Your task to perform on an android device: turn off notifications in google photos Image 0: 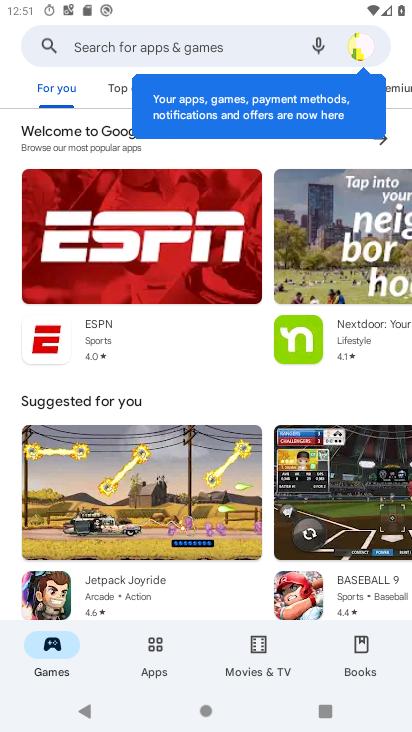
Step 0: press home button
Your task to perform on an android device: turn off notifications in google photos Image 1: 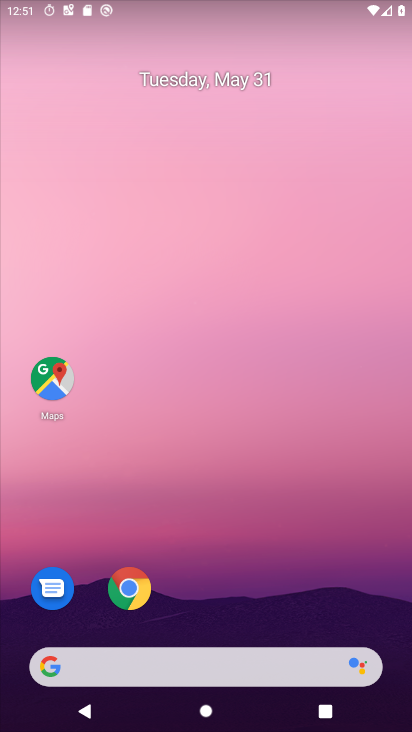
Step 1: drag from (331, 576) to (397, 25)
Your task to perform on an android device: turn off notifications in google photos Image 2: 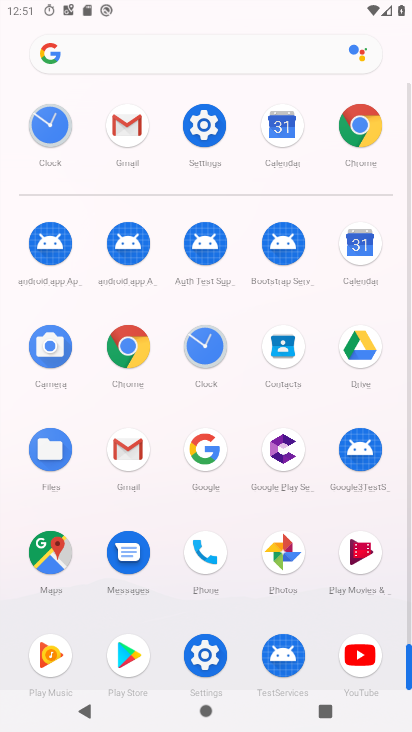
Step 2: click (278, 574)
Your task to perform on an android device: turn off notifications in google photos Image 3: 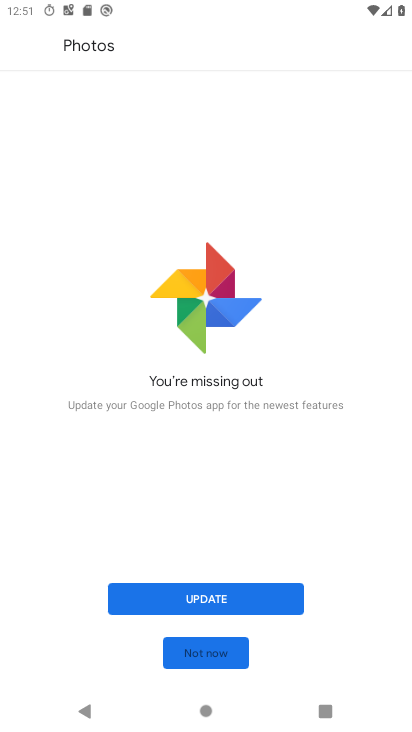
Step 3: click (252, 598)
Your task to perform on an android device: turn off notifications in google photos Image 4: 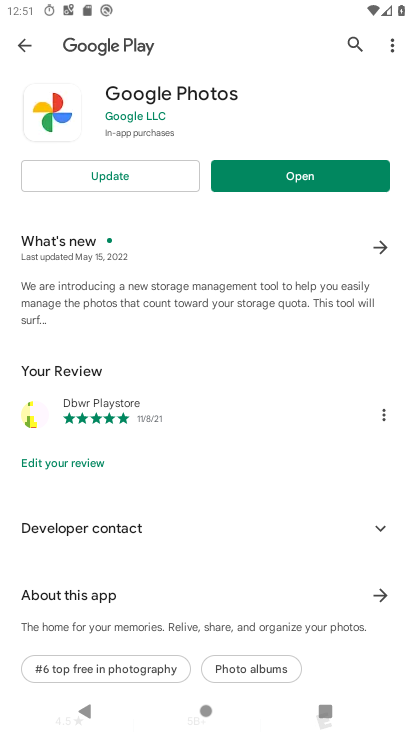
Step 4: click (128, 174)
Your task to perform on an android device: turn off notifications in google photos Image 5: 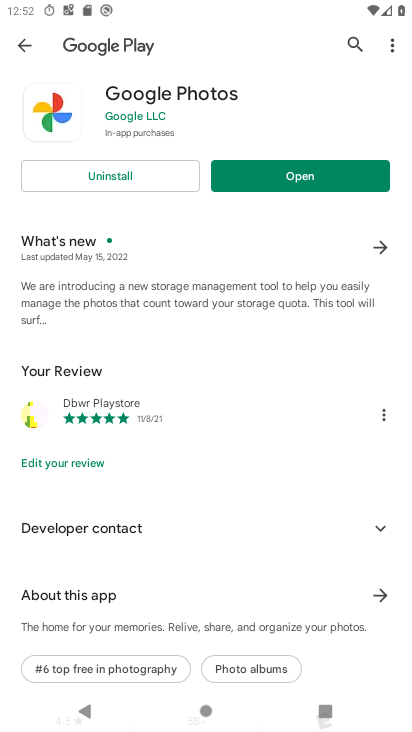
Step 5: click (304, 175)
Your task to perform on an android device: turn off notifications in google photos Image 6: 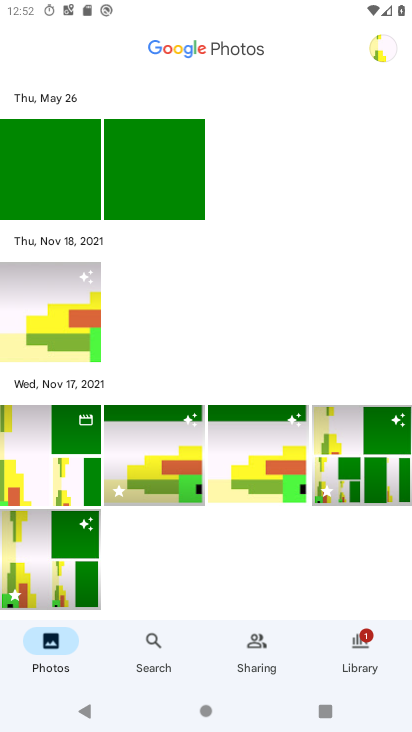
Step 6: click (381, 48)
Your task to perform on an android device: turn off notifications in google photos Image 7: 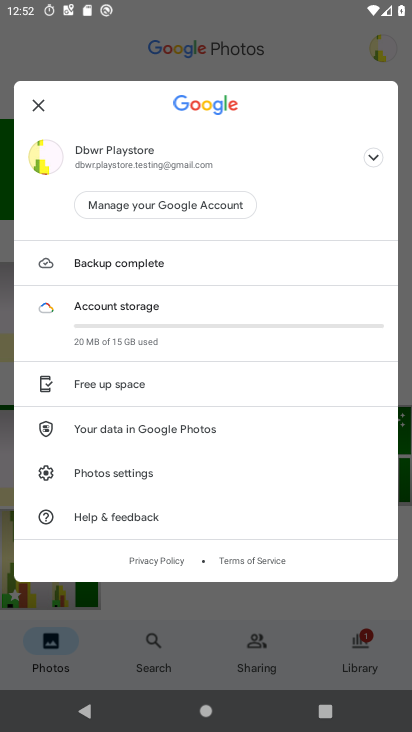
Step 7: click (125, 474)
Your task to perform on an android device: turn off notifications in google photos Image 8: 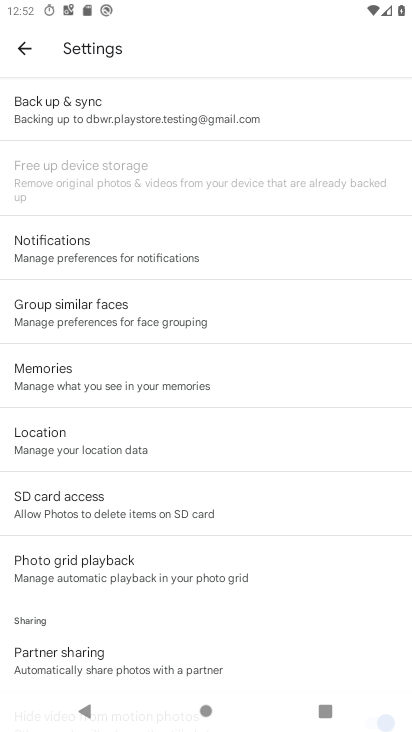
Step 8: click (138, 263)
Your task to perform on an android device: turn off notifications in google photos Image 9: 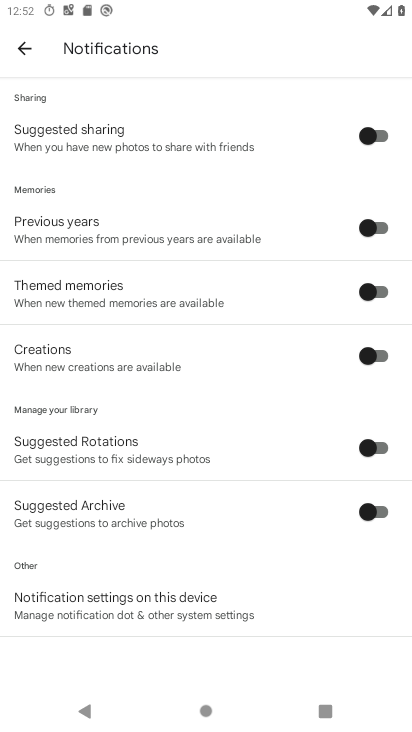
Step 9: click (203, 617)
Your task to perform on an android device: turn off notifications in google photos Image 10: 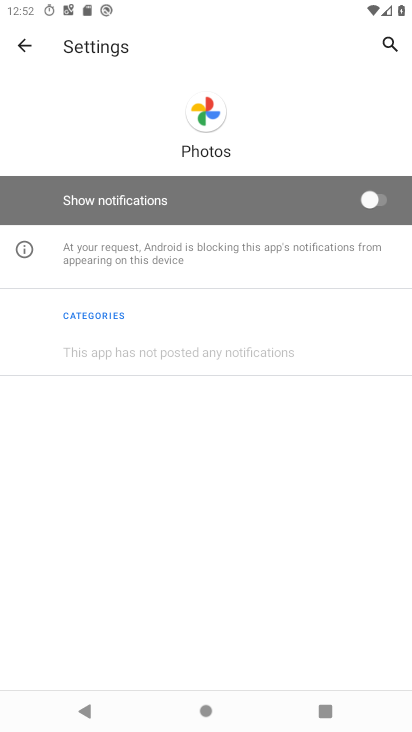
Step 10: task complete